Your task to perform on an android device: Do I have any events this weekend? Image 0: 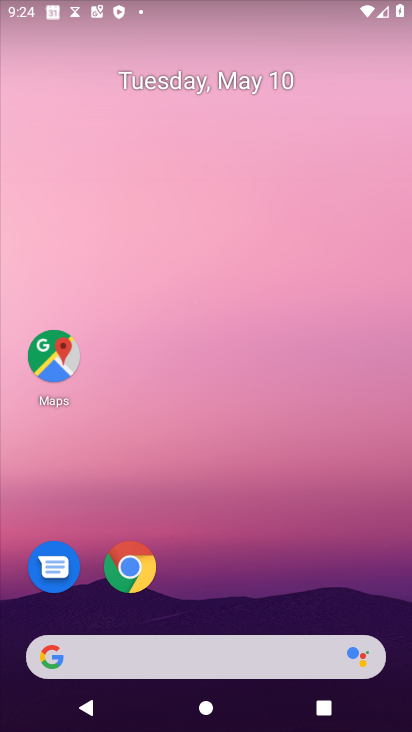
Step 0: press home button
Your task to perform on an android device: Do I have any events this weekend? Image 1: 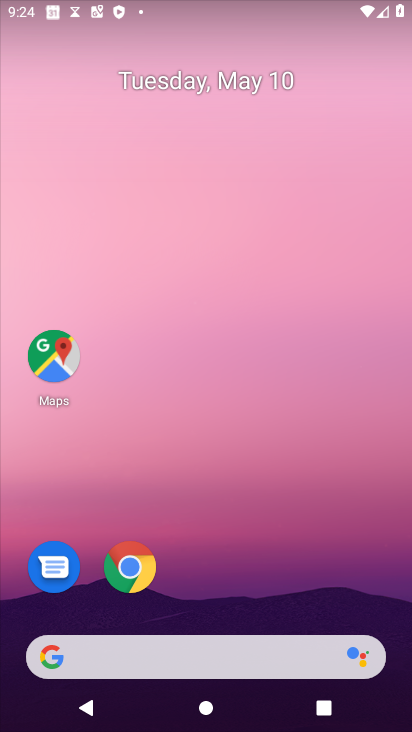
Step 1: drag from (30, 655) to (249, 139)
Your task to perform on an android device: Do I have any events this weekend? Image 2: 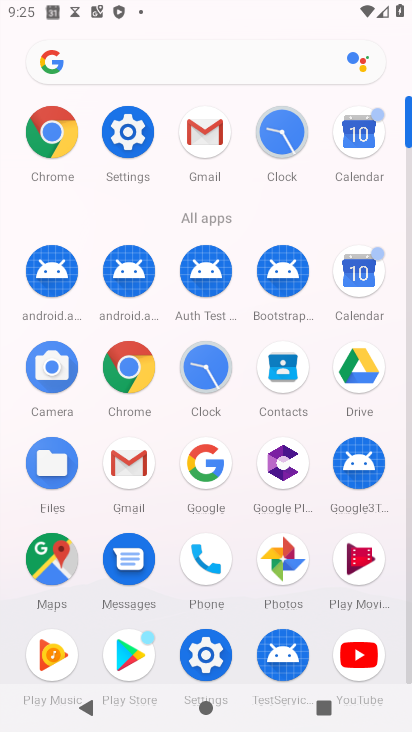
Step 2: click (347, 135)
Your task to perform on an android device: Do I have any events this weekend? Image 3: 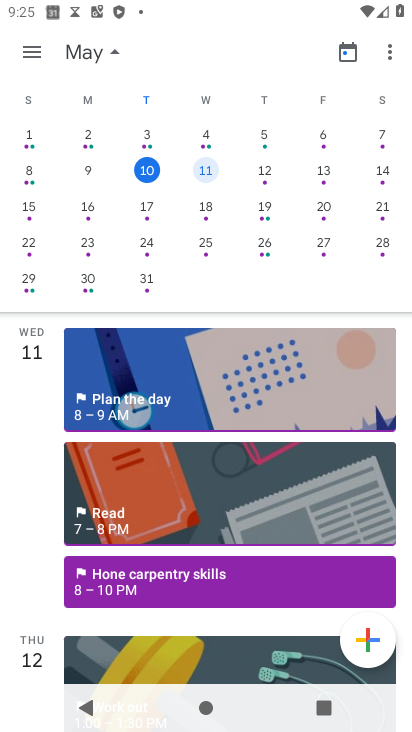
Step 3: click (211, 180)
Your task to perform on an android device: Do I have any events this weekend? Image 4: 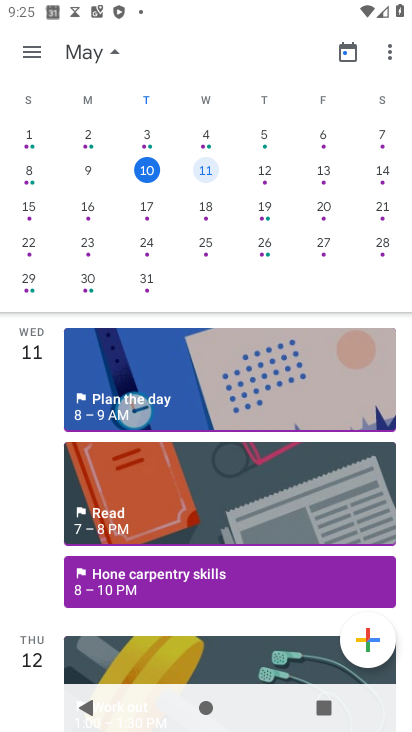
Step 4: click (200, 165)
Your task to perform on an android device: Do I have any events this weekend? Image 5: 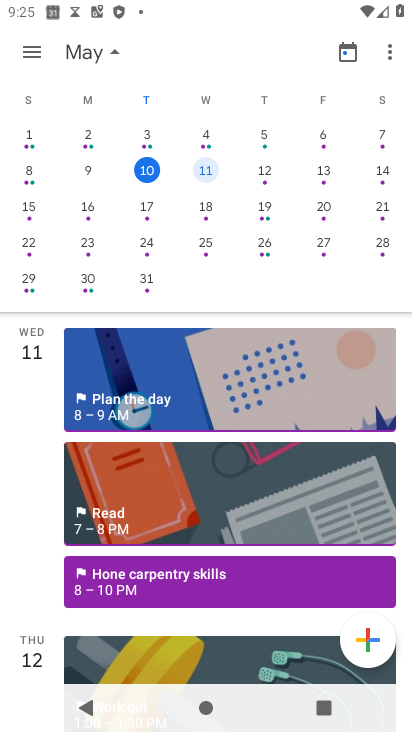
Step 5: click (189, 175)
Your task to perform on an android device: Do I have any events this weekend? Image 6: 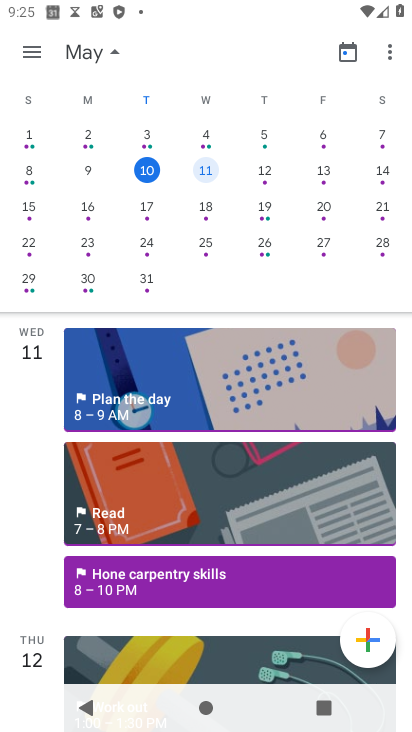
Step 6: click (258, 174)
Your task to perform on an android device: Do I have any events this weekend? Image 7: 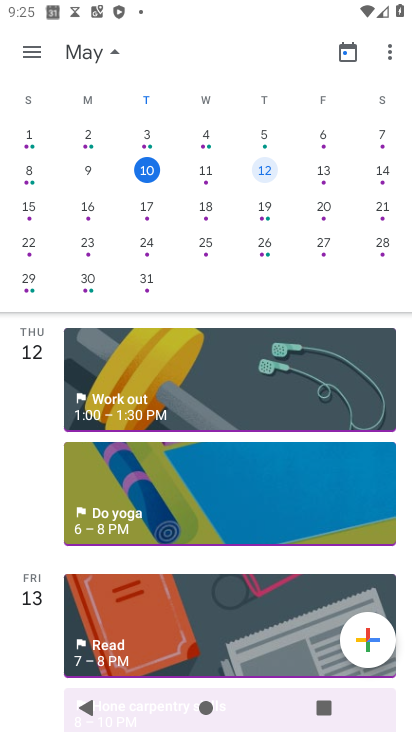
Step 7: click (385, 169)
Your task to perform on an android device: Do I have any events this weekend? Image 8: 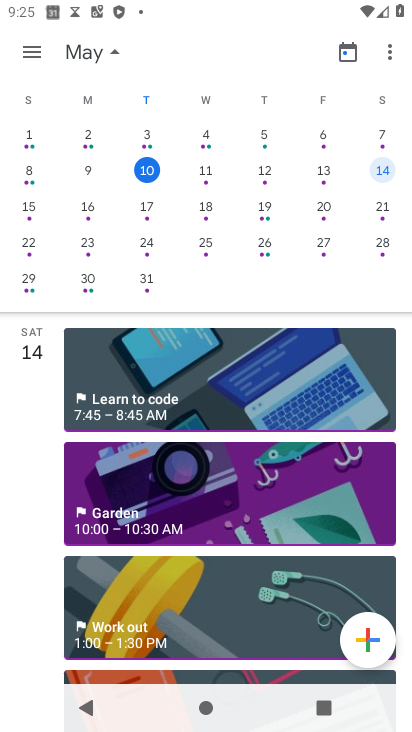
Step 8: click (375, 170)
Your task to perform on an android device: Do I have any events this weekend? Image 9: 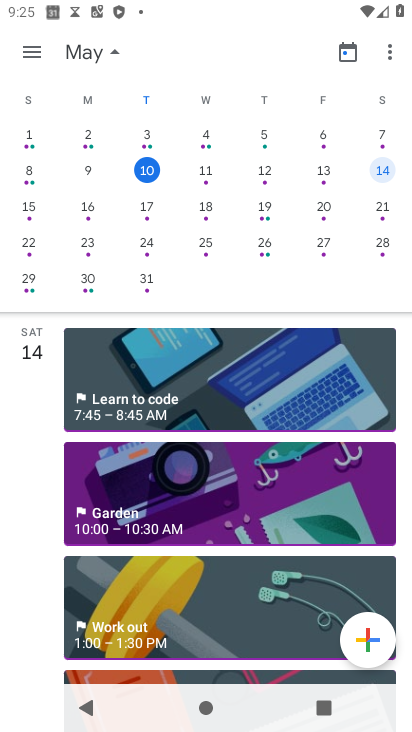
Step 9: click (29, 204)
Your task to perform on an android device: Do I have any events this weekend? Image 10: 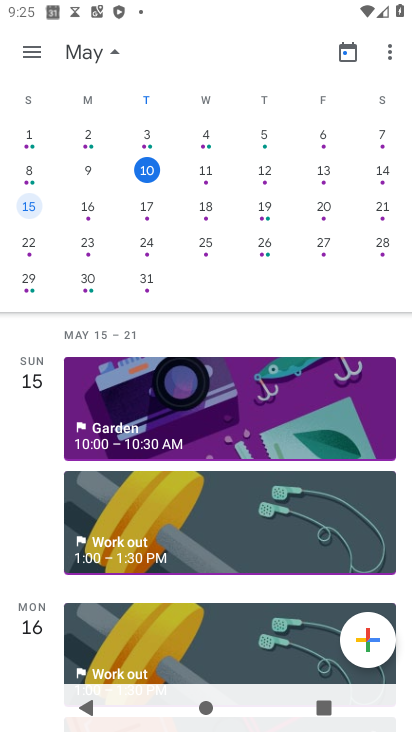
Step 10: task complete